Your task to perform on an android device: check storage Image 0: 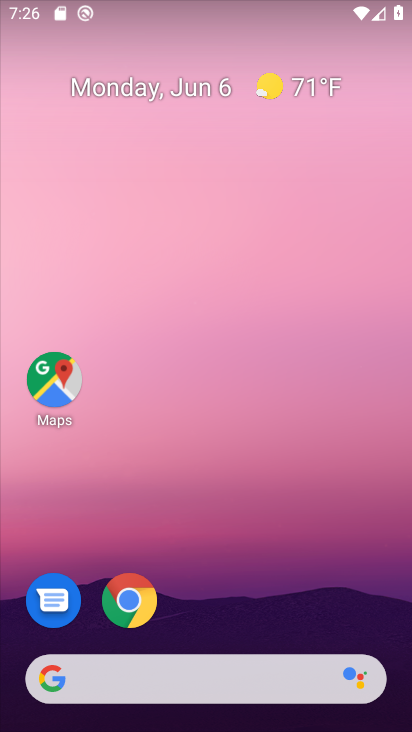
Step 0: drag from (328, 575) to (280, 96)
Your task to perform on an android device: check storage Image 1: 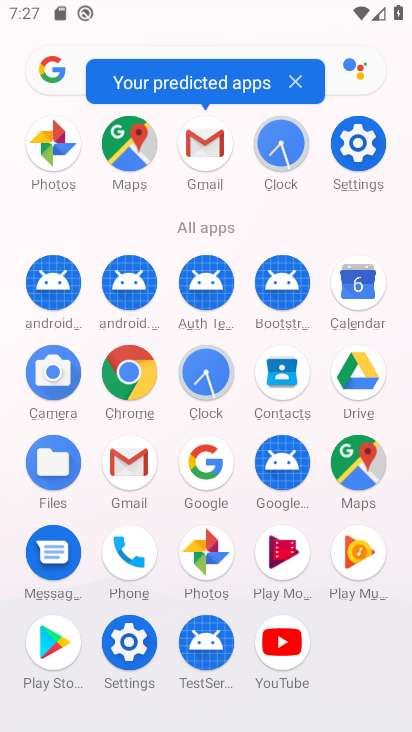
Step 1: drag from (353, 596) to (334, 176)
Your task to perform on an android device: check storage Image 2: 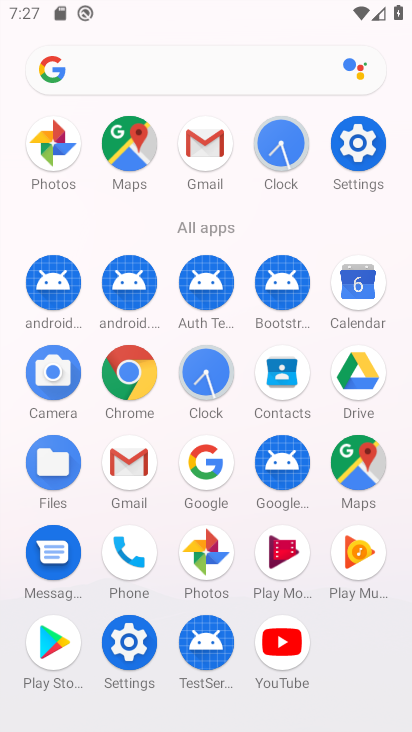
Step 2: click (125, 650)
Your task to perform on an android device: check storage Image 3: 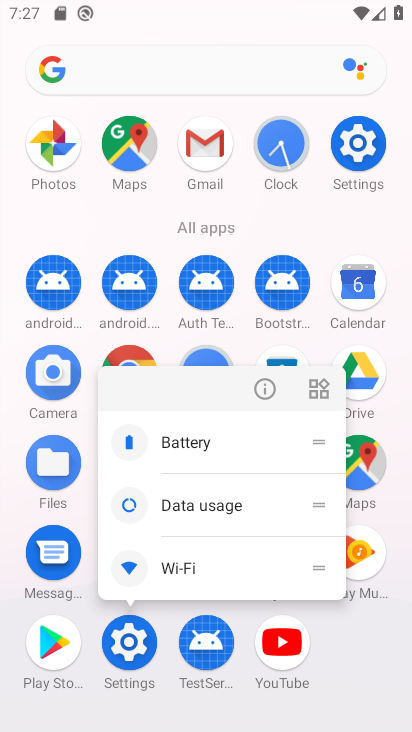
Step 3: click (128, 655)
Your task to perform on an android device: check storage Image 4: 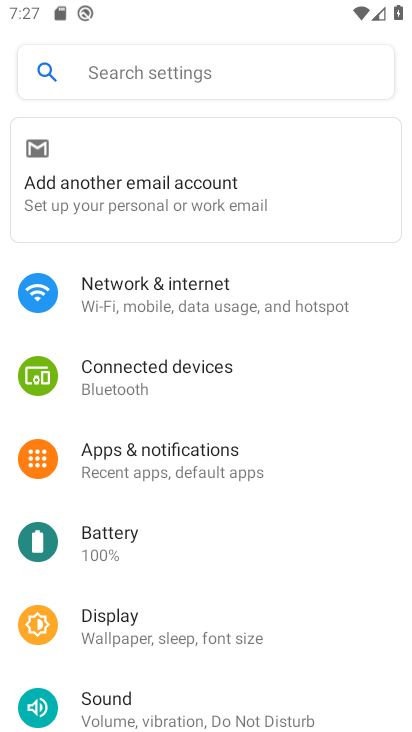
Step 4: drag from (162, 580) to (206, 268)
Your task to perform on an android device: check storage Image 5: 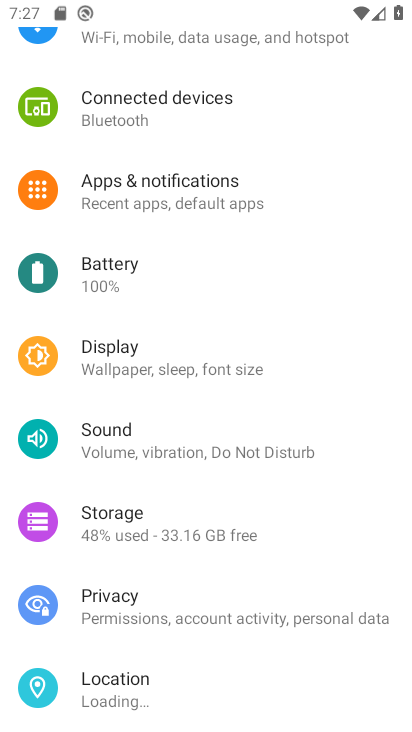
Step 5: click (175, 541)
Your task to perform on an android device: check storage Image 6: 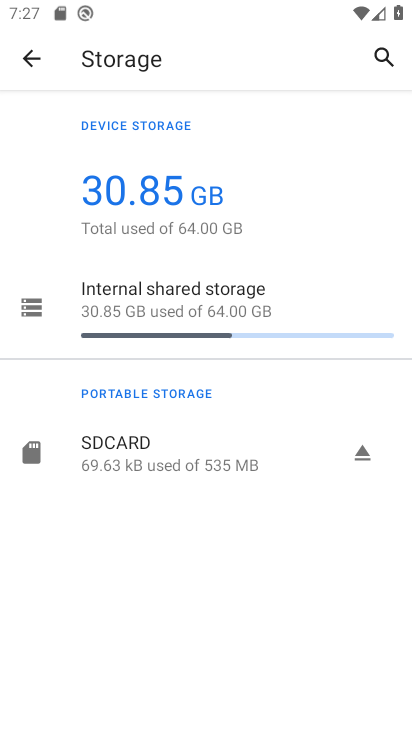
Step 6: click (35, 303)
Your task to perform on an android device: check storage Image 7: 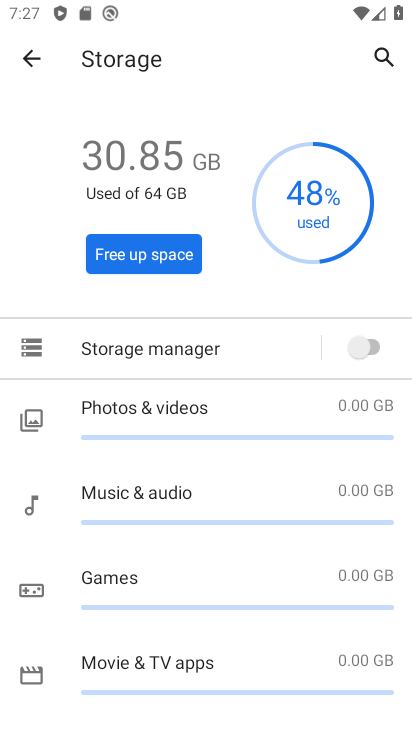
Step 7: task complete